Your task to perform on an android device: turn notification dots off Image 0: 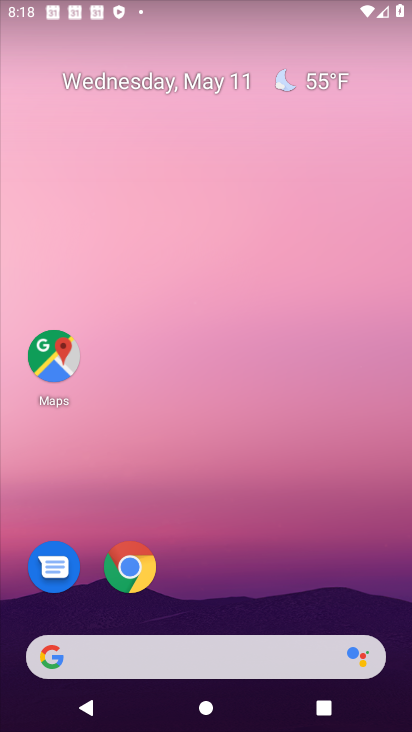
Step 0: drag from (296, 636) to (236, 12)
Your task to perform on an android device: turn notification dots off Image 1: 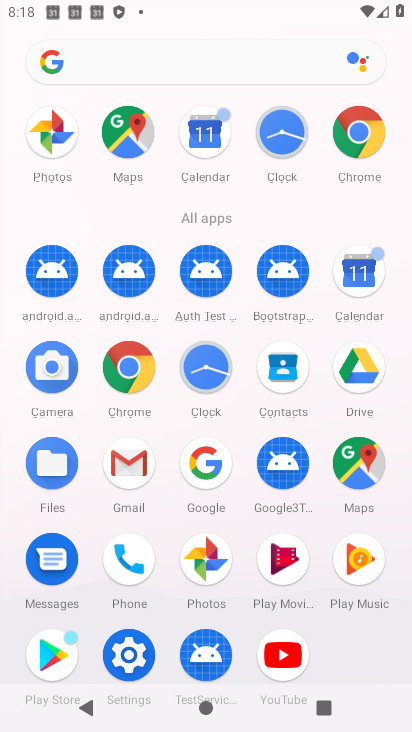
Step 1: click (128, 663)
Your task to perform on an android device: turn notification dots off Image 2: 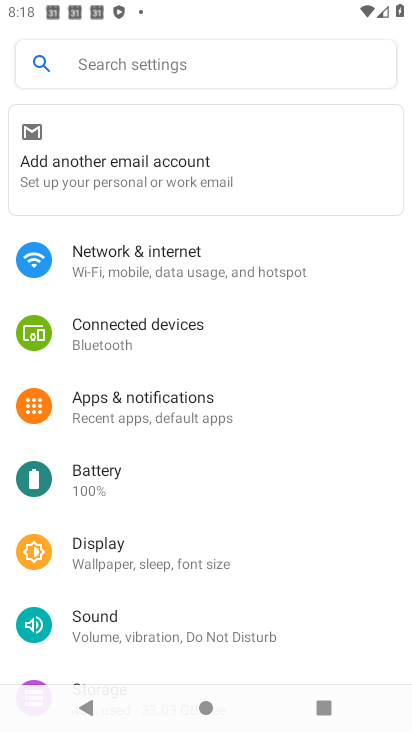
Step 2: click (164, 408)
Your task to perform on an android device: turn notification dots off Image 3: 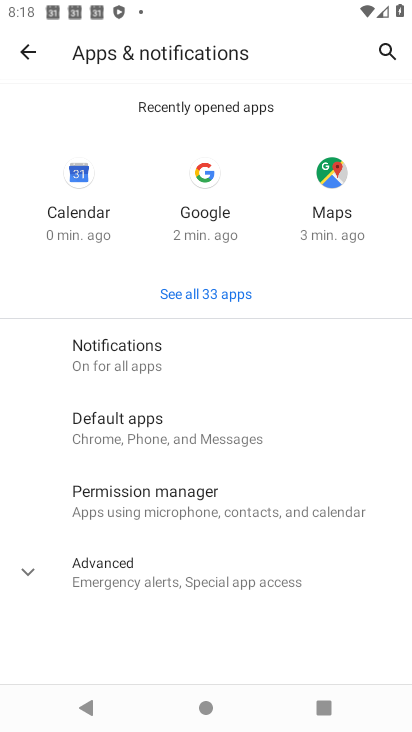
Step 3: click (143, 379)
Your task to perform on an android device: turn notification dots off Image 4: 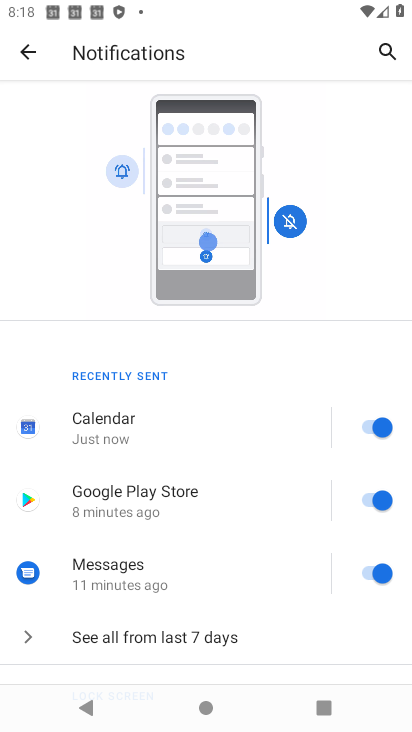
Step 4: drag from (257, 647) to (256, 349)
Your task to perform on an android device: turn notification dots off Image 5: 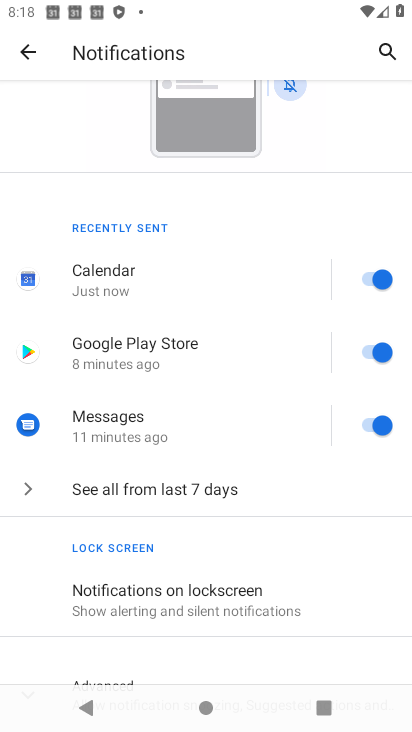
Step 5: drag from (198, 636) to (239, 307)
Your task to perform on an android device: turn notification dots off Image 6: 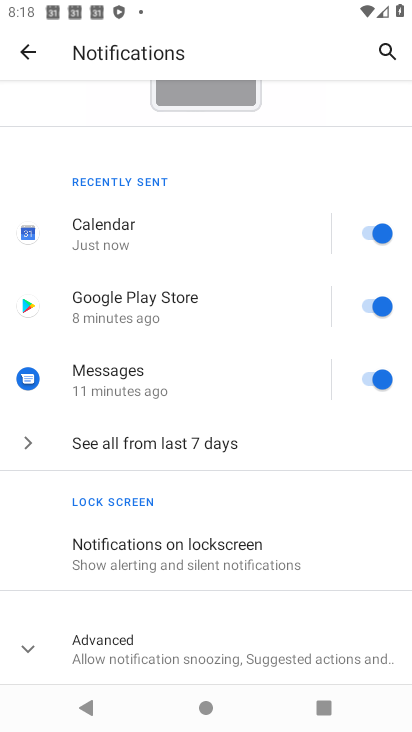
Step 6: click (109, 640)
Your task to perform on an android device: turn notification dots off Image 7: 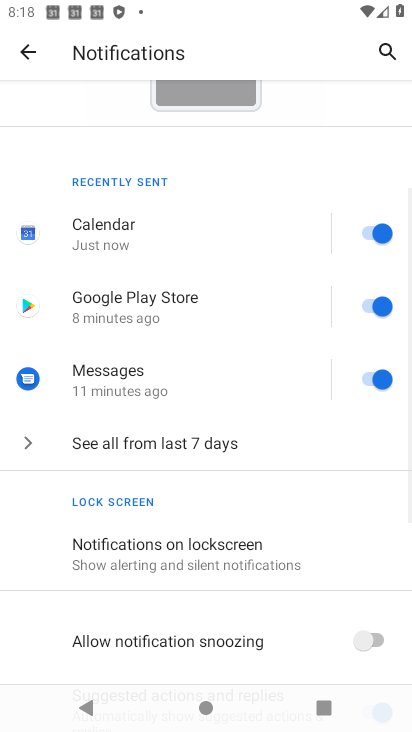
Step 7: drag from (339, 620) to (334, 301)
Your task to perform on an android device: turn notification dots off Image 8: 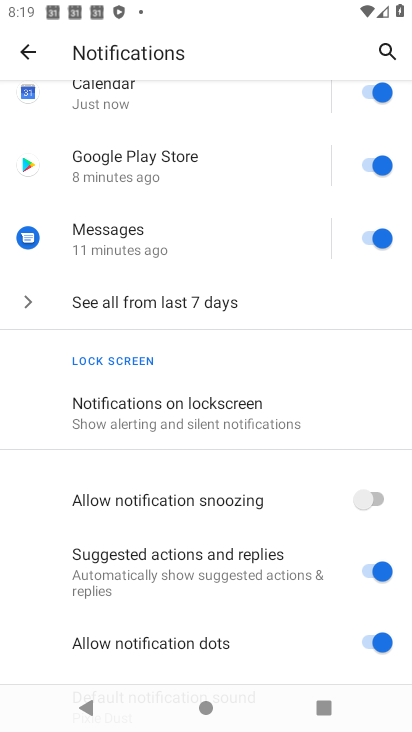
Step 8: click (370, 642)
Your task to perform on an android device: turn notification dots off Image 9: 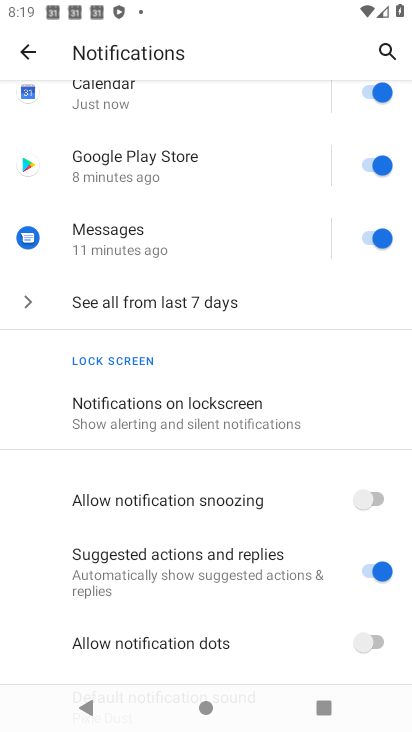
Step 9: task complete